Your task to perform on an android device: open wifi settings Image 0: 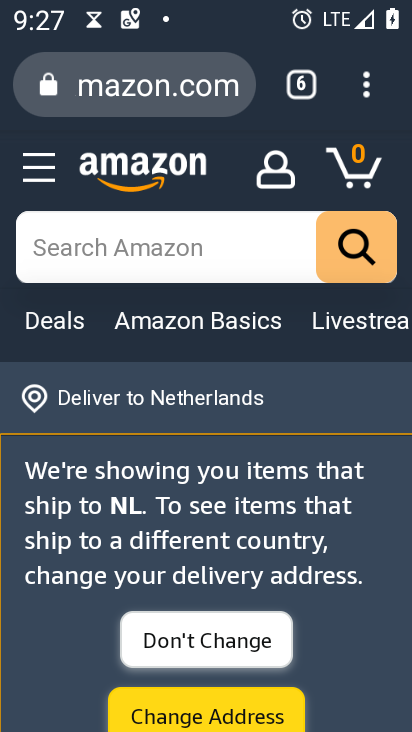
Step 0: press home button
Your task to perform on an android device: open wifi settings Image 1: 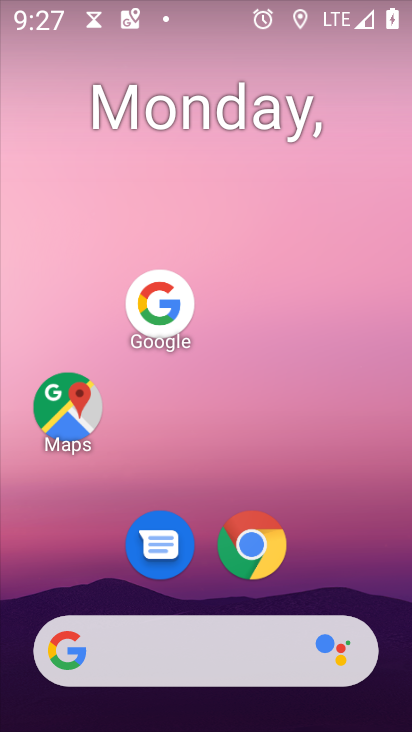
Step 1: drag from (207, 634) to (365, 228)
Your task to perform on an android device: open wifi settings Image 2: 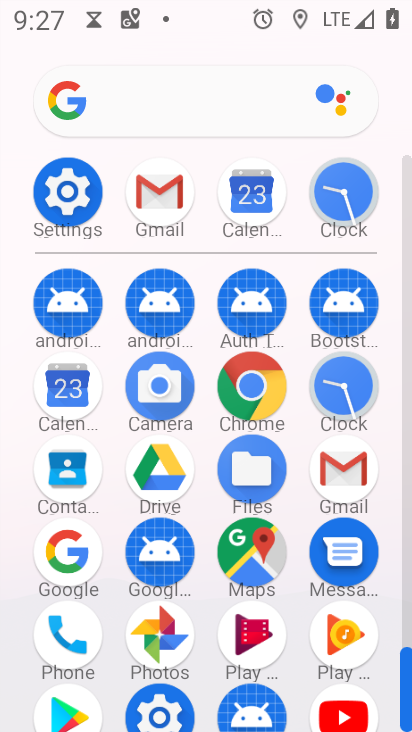
Step 2: click (68, 200)
Your task to perform on an android device: open wifi settings Image 3: 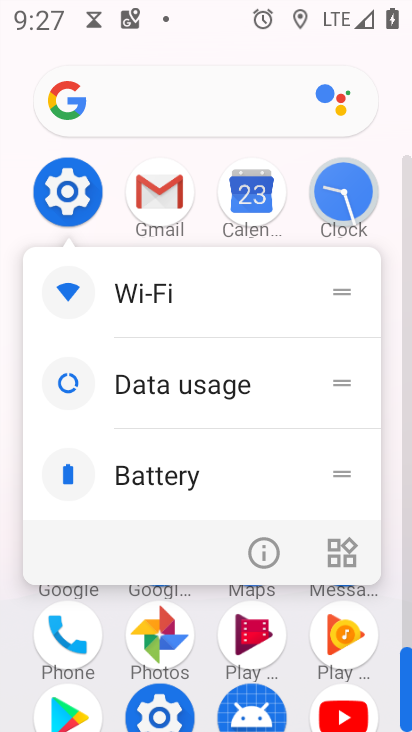
Step 3: click (66, 213)
Your task to perform on an android device: open wifi settings Image 4: 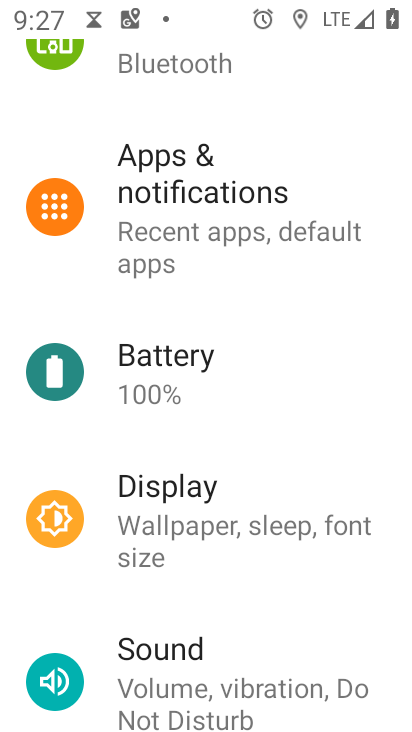
Step 4: drag from (320, 119) to (259, 534)
Your task to perform on an android device: open wifi settings Image 5: 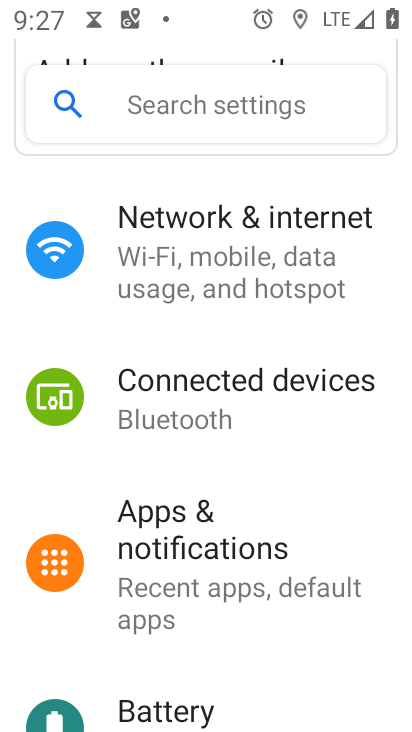
Step 5: drag from (314, 314) to (310, 499)
Your task to perform on an android device: open wifi settings Image 6: 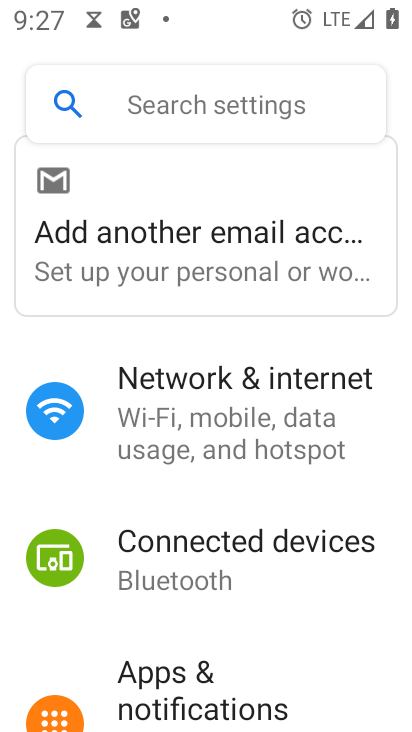
Step 6: click (251, 381)
Your task to perform on an android device: open wifi settings Image 7: 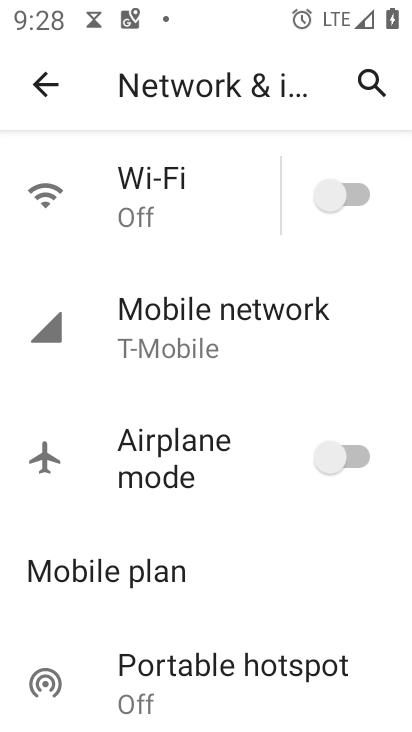
Step 7: click (148, 223)
Your task to perform on an android device: open wifi settings Image 8: 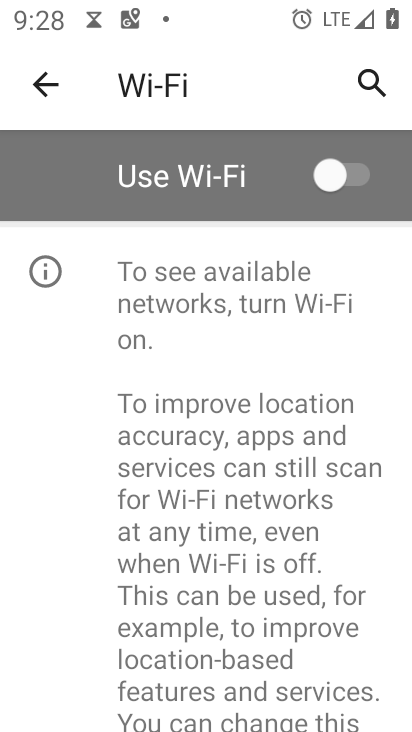
Step 8: task complete